Your task to perform on an android device: turn notification dots on Image 0: 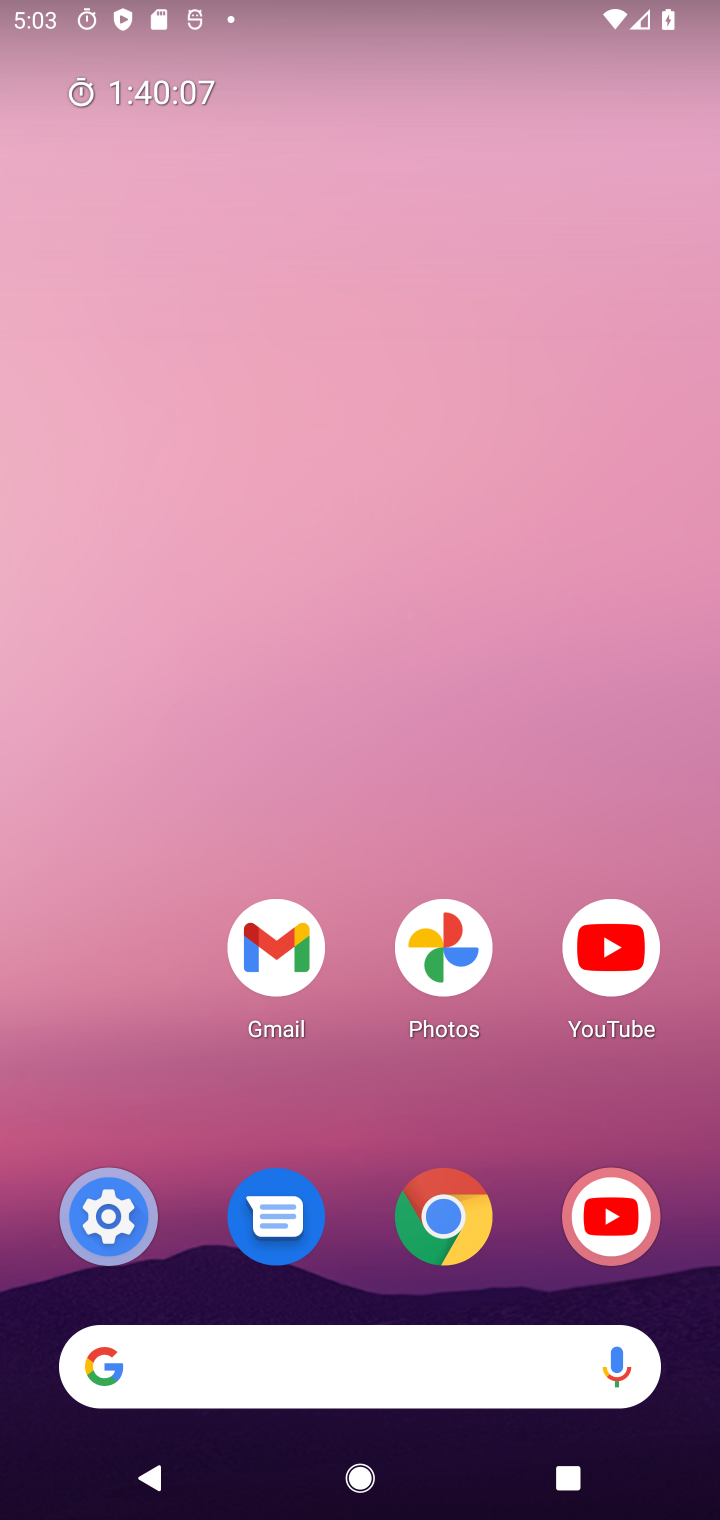
Step 0: press home button
Your task to perform on an android device: turn notification dots on Image 1: 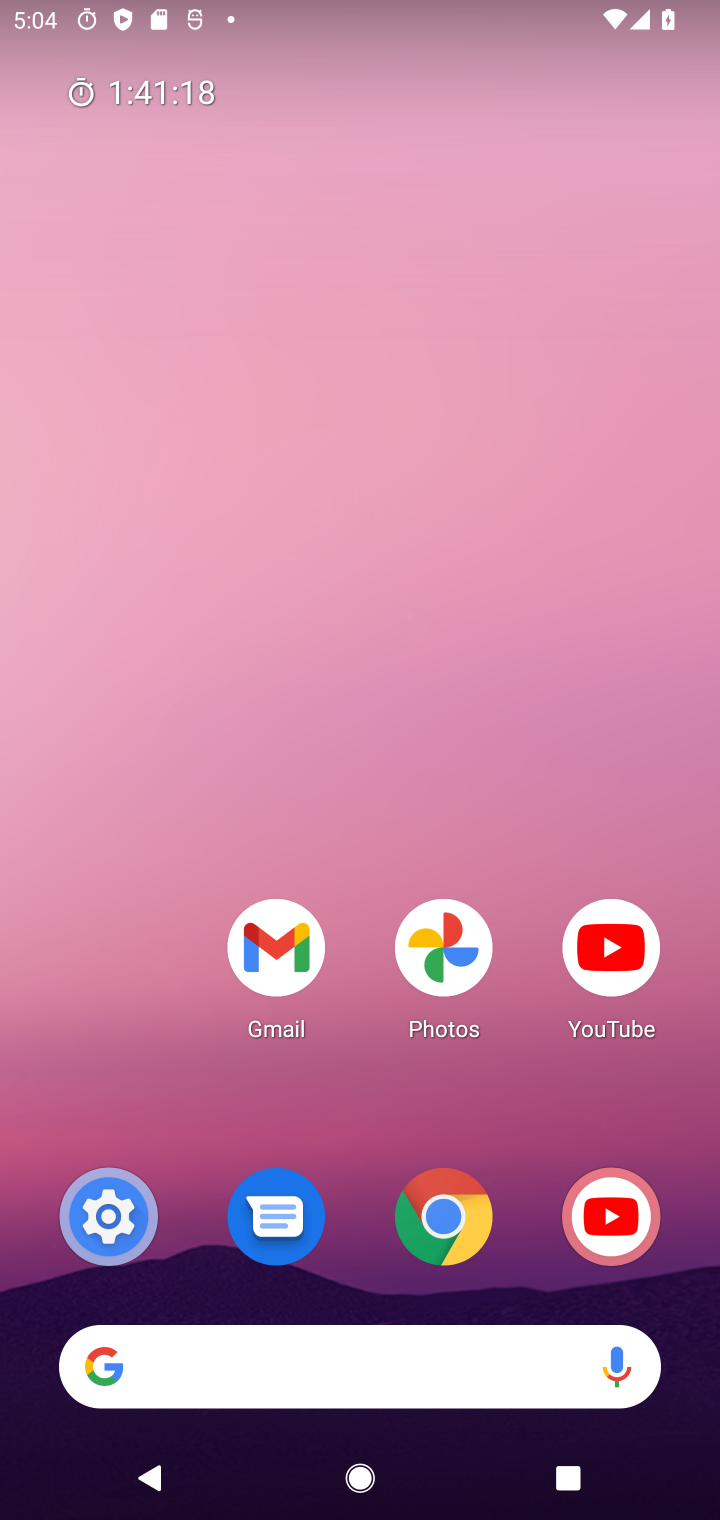
Step 1: click (117, 1222)
Your task to perform on an android device: turn notification dots on Image 2: 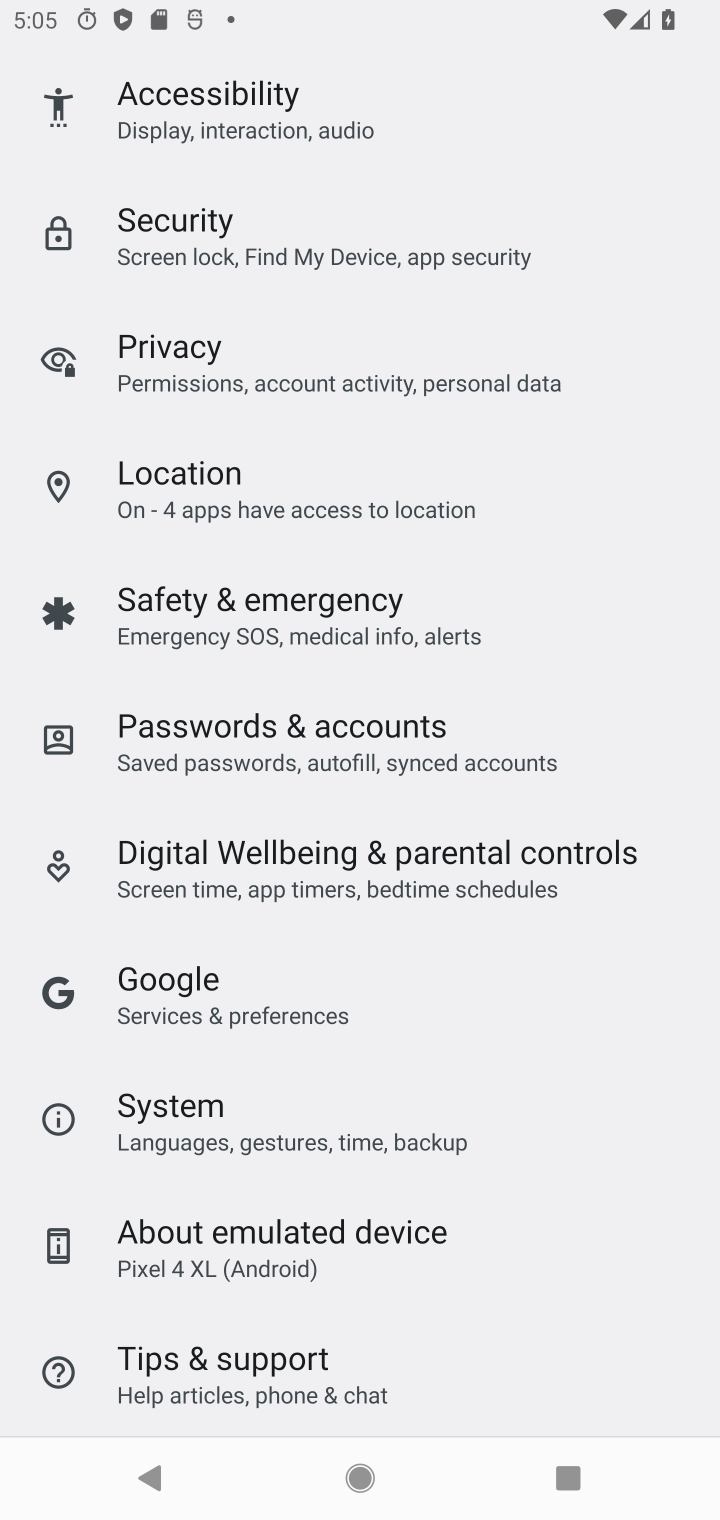
Step 2: drag from (228, 257) to (229, 1221)
Your task to perform on an android device: turn notification dots on Image 3: 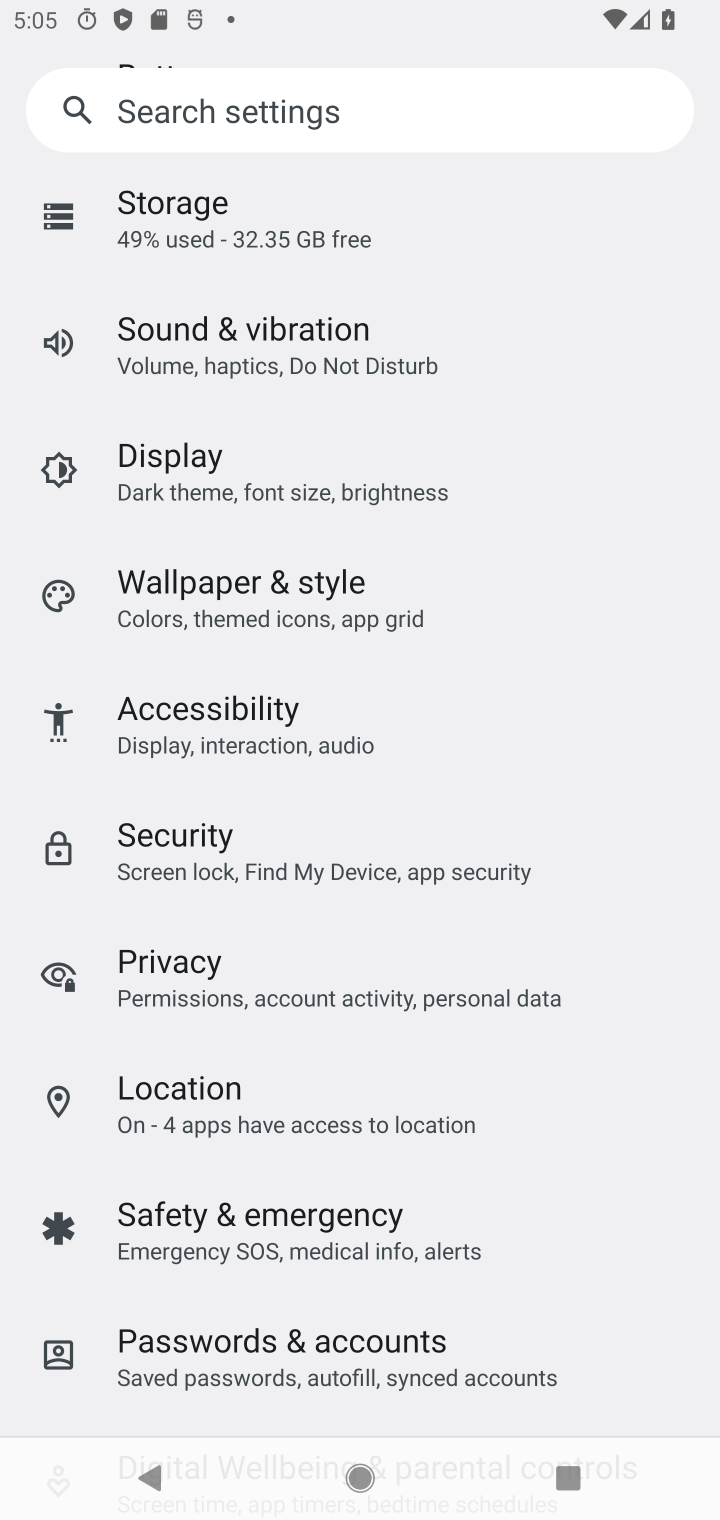
Step 3: drag from (247, 256) to (297, 955)
Your task to perform on an android device: turn notification dots on Image 4: 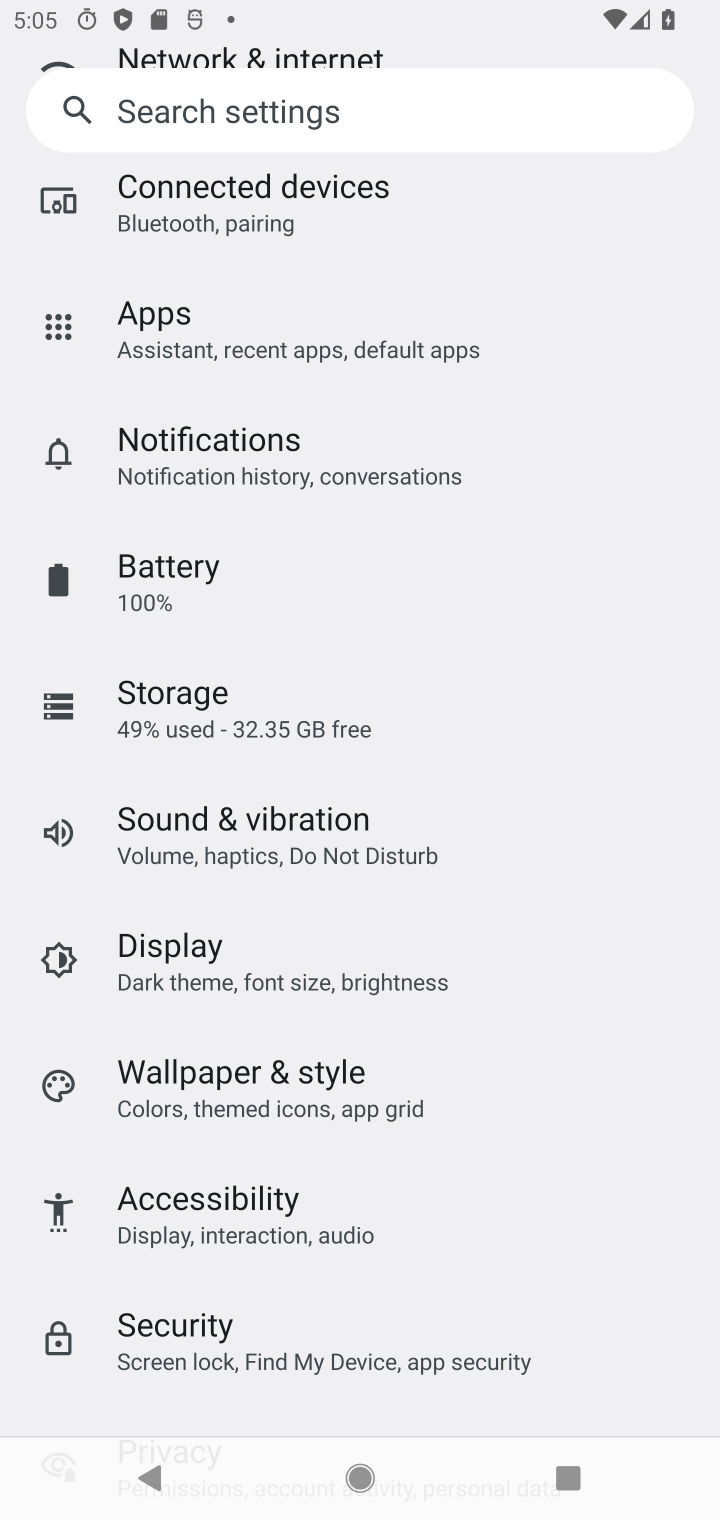
Step 4: click (212, 440)
Your task to perform on an android device: turn notification dots on Image 5: 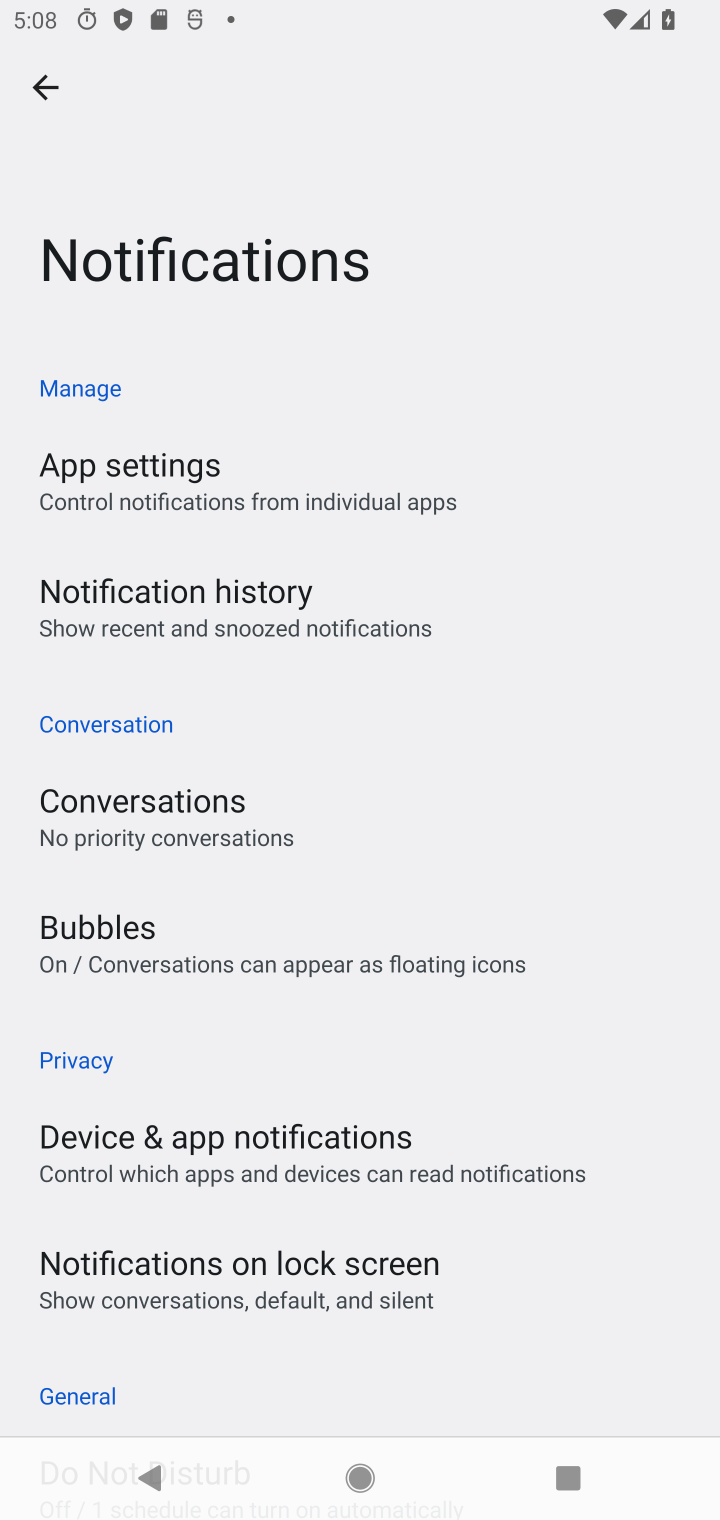
Step 5: task complete